Your task to perform on an android device: check google app version Image 0: 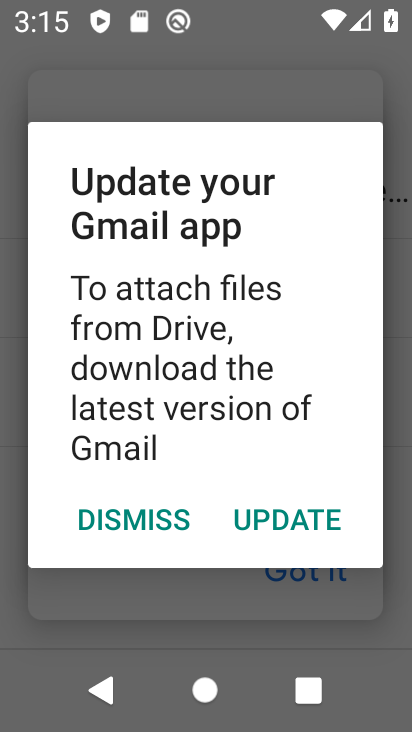
Step 0: press home button
Your task to perform on an android device: check google app version Image 1: 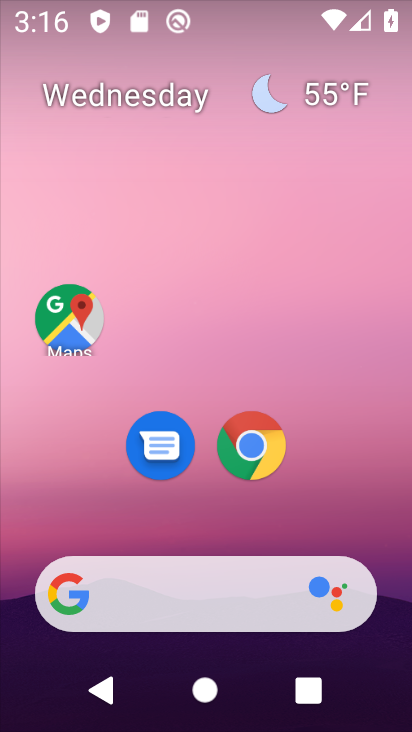
Step 1: click (253, 566)
Your task to perform on an android device: check google app version Image 2: 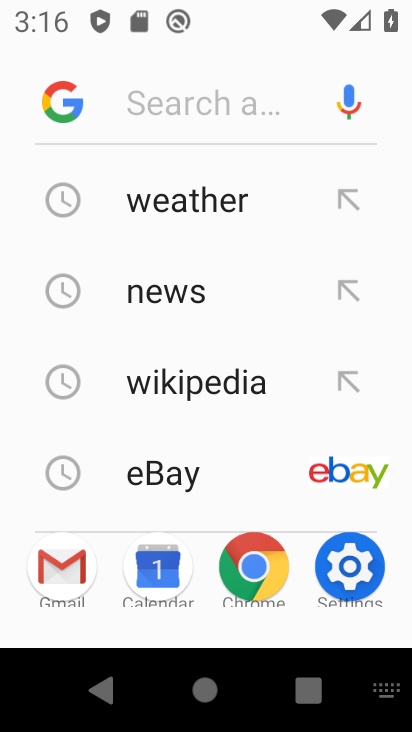
Step 2: click (40, 113)
Your task to perform on an android device: check google app version Image 3: 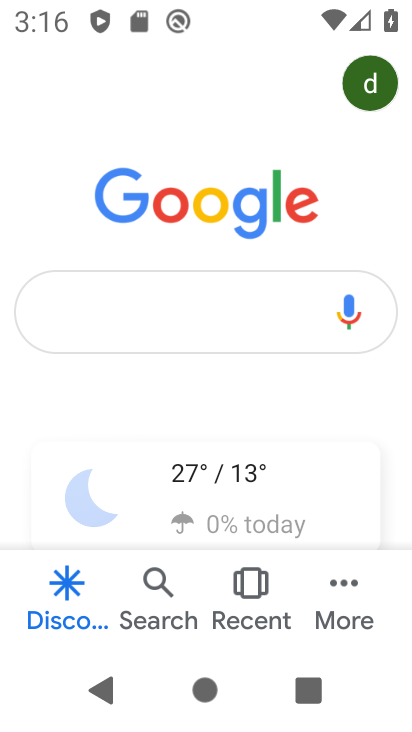
Step 3: click (327, 604)
Your task to perform on an android device: check google app version Image 4: 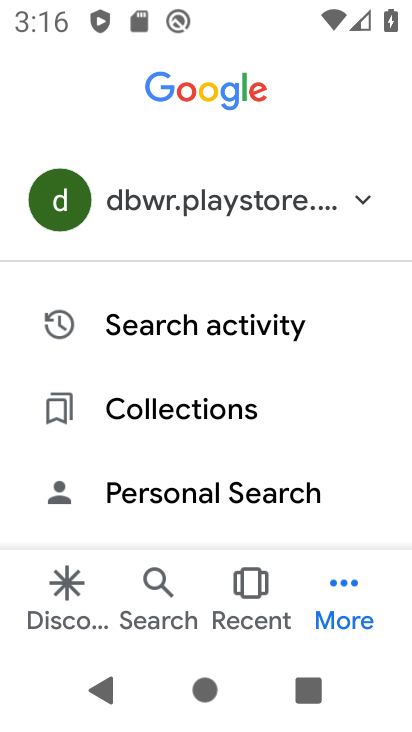
Step 4: drag from (287, 512) to (231, 241)
Your task to perform on an android device: check google app version Image 5: 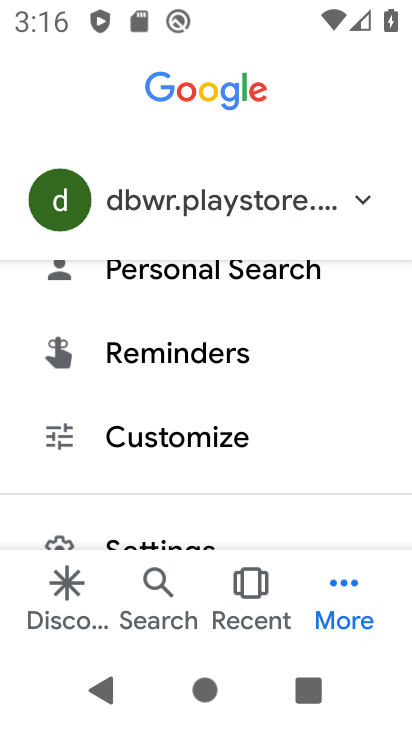
Step 5: drag from (182, 459) to (144, 206)
Your task to perform on an android device: check google app version Image 6: 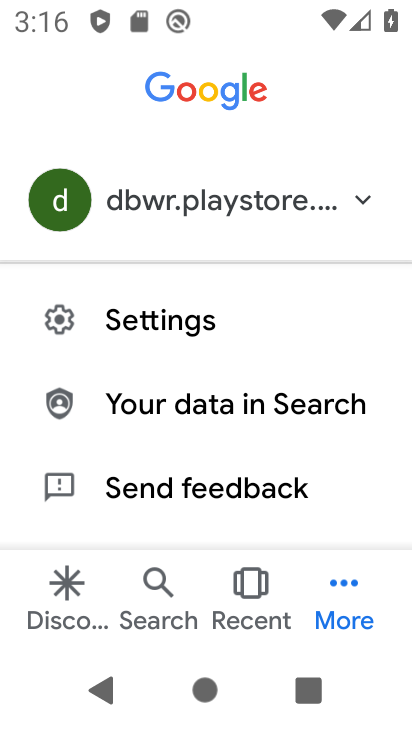
Step 6: click (96, 327)
Your task to perform on an android device: check google app version Image 7: 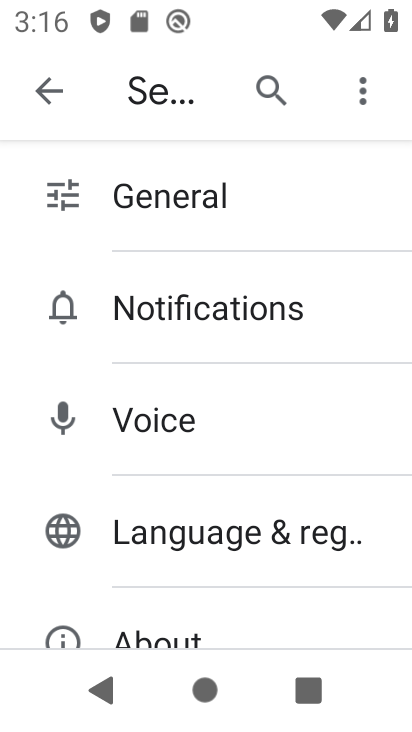
Step 7: drag from (123, 476) to (88, 339)
Your task to perform on an android device: check google app version Image 8: 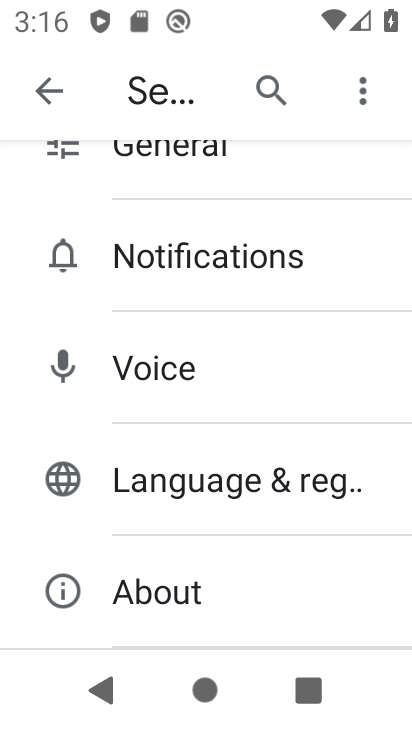
Step 8: click (103, 568)
Your task to perform on an android device: check google app version Image 9: 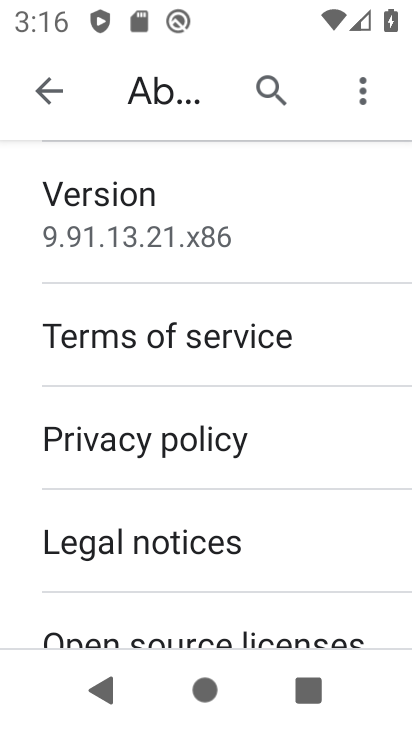
Step 9: task complete